Your task to perform on an android device: Go to wifi settings Image 0: 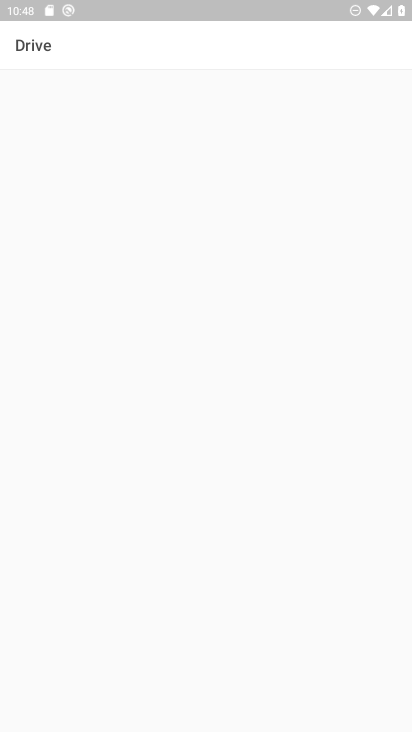
Step 0: press home button
Your task to perform on an android device: Go to wifi settings Image 1: 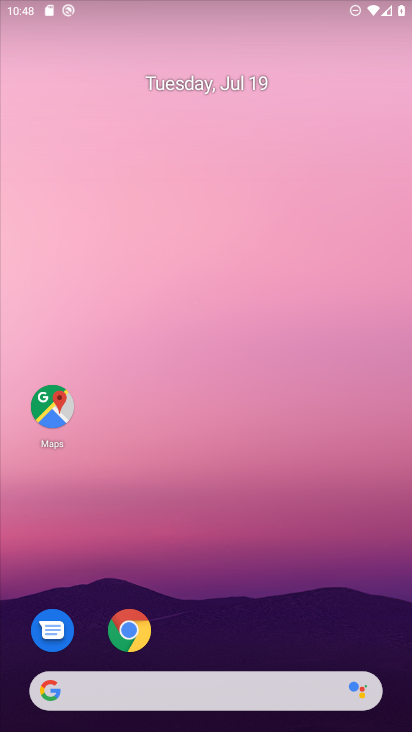
Step 1: drag from (186, 594) to (170, 117)
Your task to perform on an android device: Go to wifi settings Image 2: 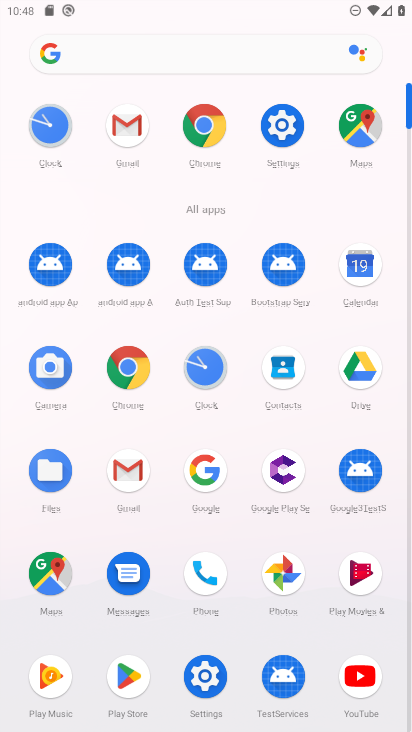
Step 2: click (264, 132)
Your task to perform on an android device: Go to wifi settings Image 3: 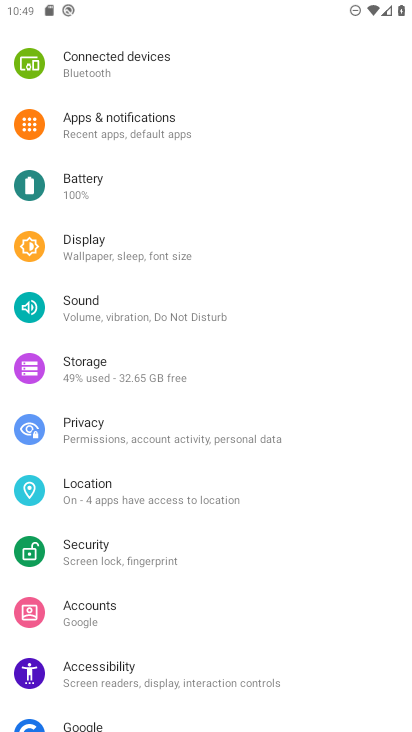
Step 3: drag from (172, 303) to (182, 473)
Your task to perform on an android device: Go to wifi settings Image 4: 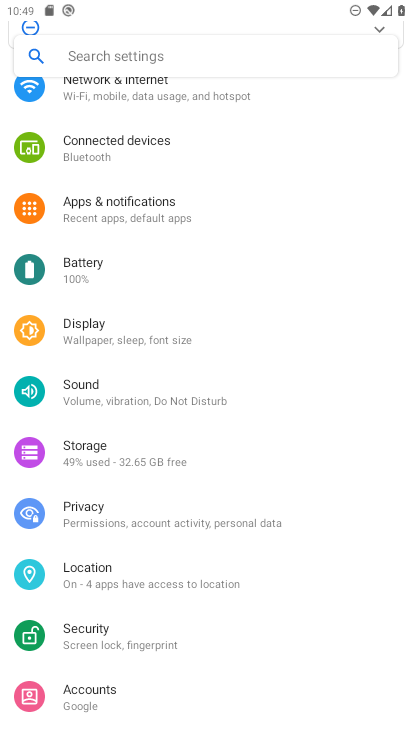
Step 4: drag from (172, 319) to (187, 588)
Your task to perform on an android device: Go to wifi settings Image 5: 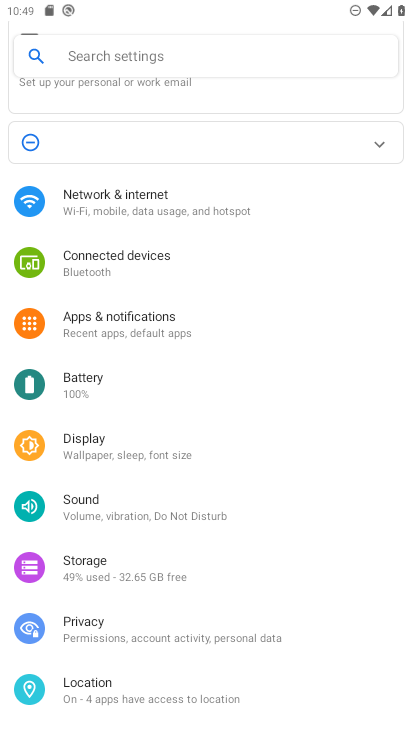
Step 5: click (152, 205)
Your task to perform on an android device: Go to wifi settings Image 6: 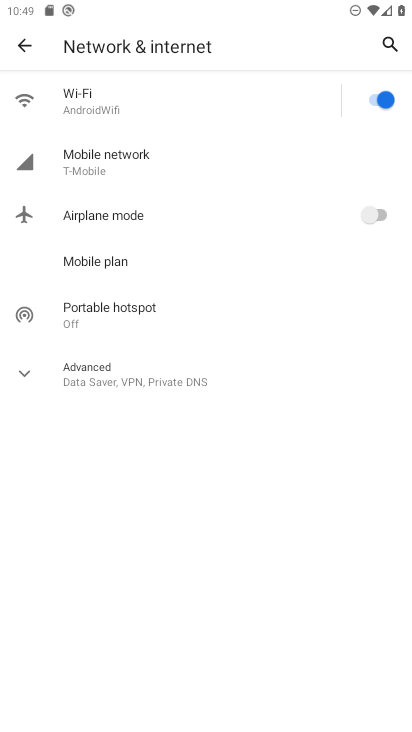
Step 6: click (106, 101)
Your task to perform on an android device: Go to wifi settings Image 7: 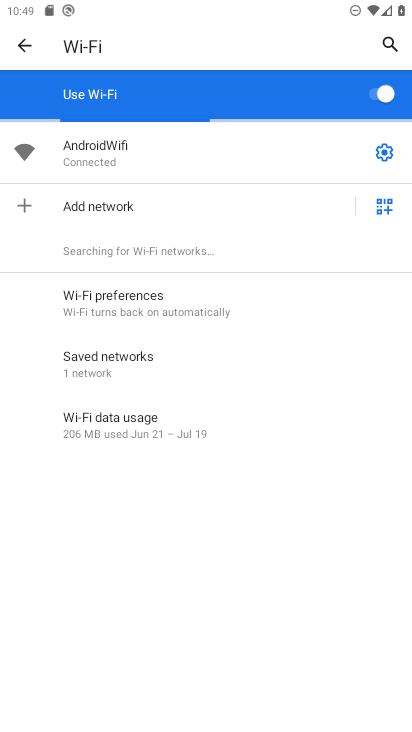
Step 7: task complete